Your task to perform on an android device: open device folders in google photos Image 0: 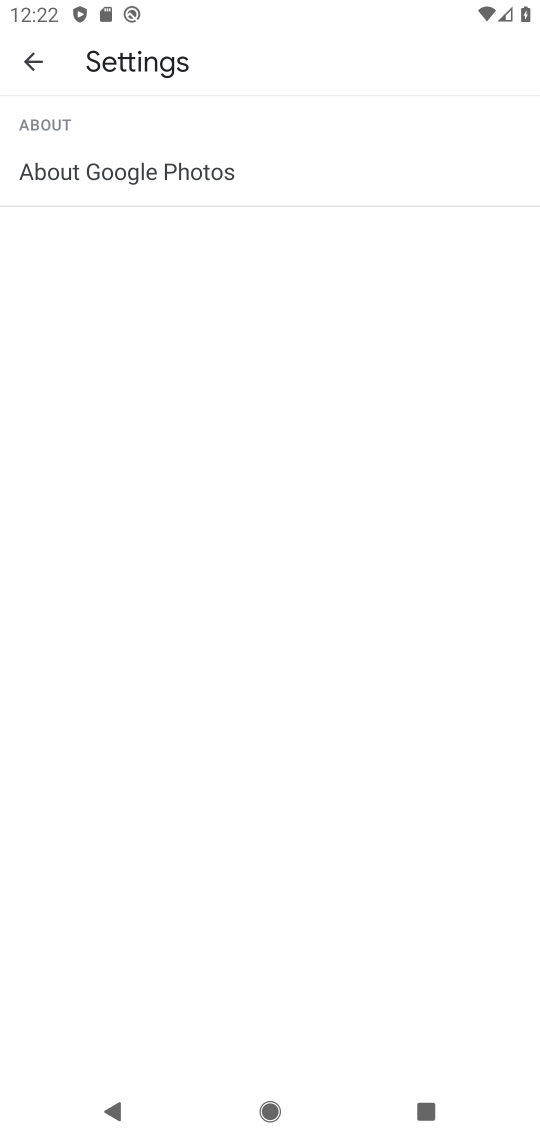
Step 0: press home button
Your task to perform on an android device: open device folders in google photos Image 1: 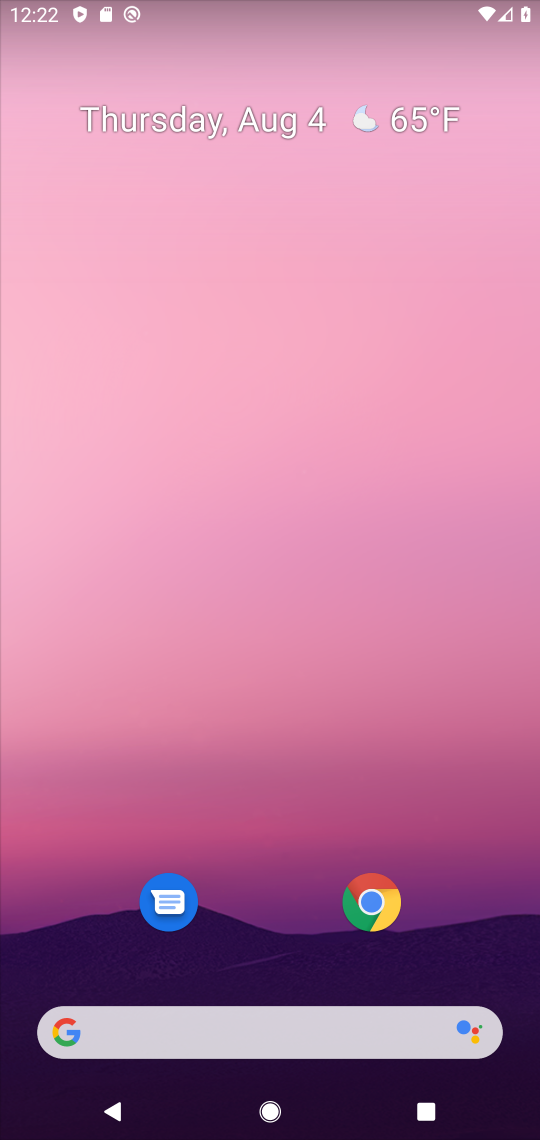
Step 1: drag from (465, 862) to (456, 188)
Your task to perform on an android device: open device folders in google photos Image 2: 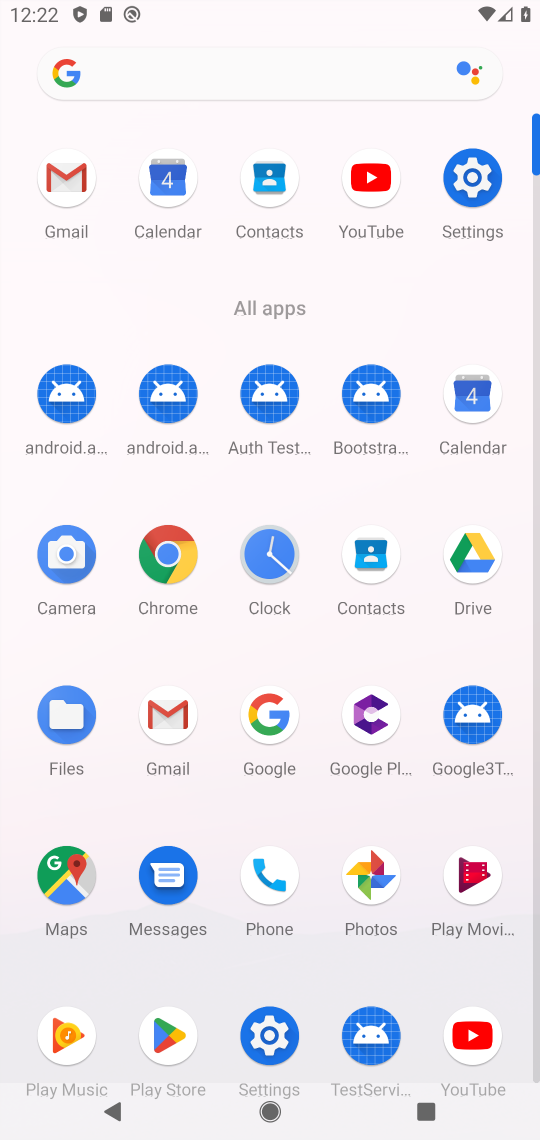
Step 2: click (368, 874)
Your task to perform on an android device: open device folders in google photos Image 3: 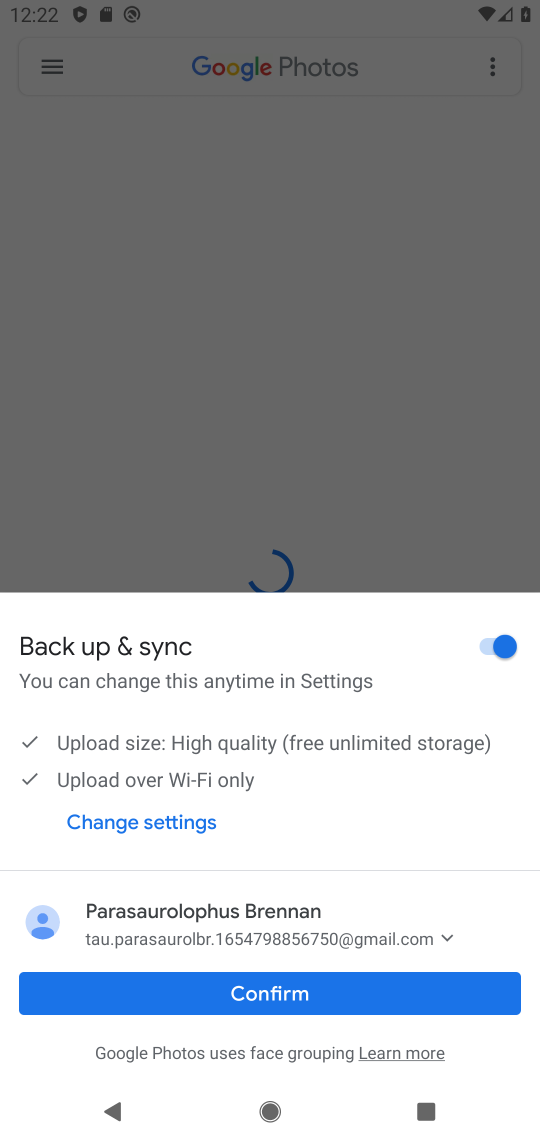
Step 3: click (278, 983)
Your task to perform on an android device: open device folders in google photos Image 4: 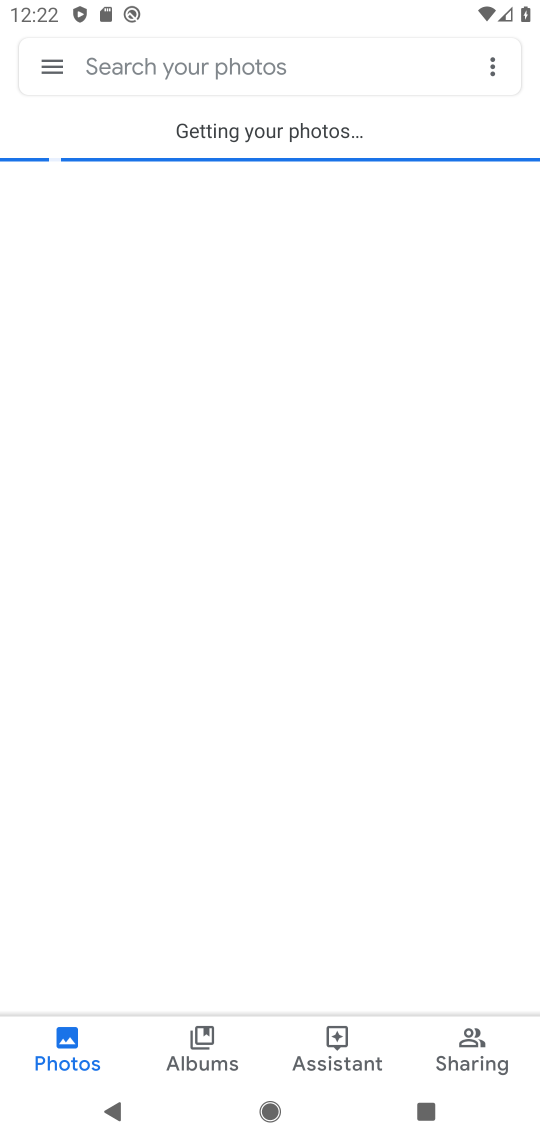
Step 4: click (54, 65)
Your task to perform on an android device: open device folders in google photos Image 5: 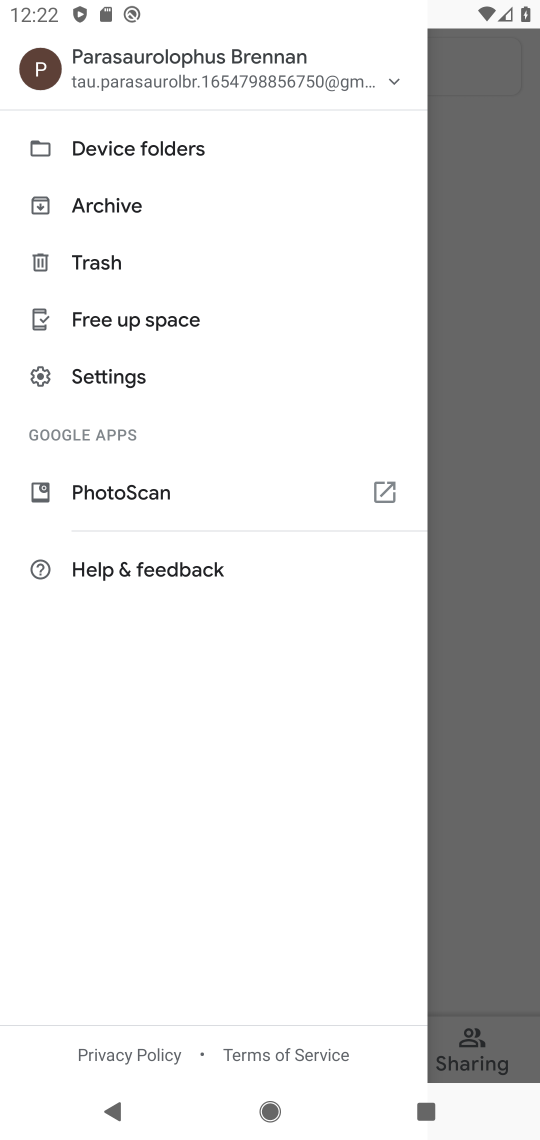
Step 5: click (140, 148)
Your task to perform on an android device: open device folders in google photos Image 6: 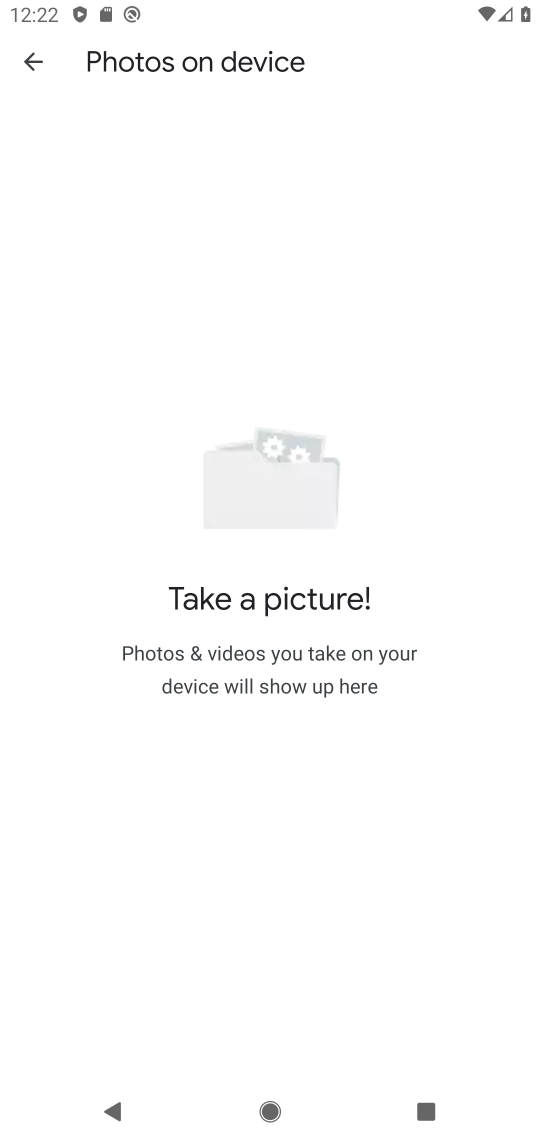
Step 6: task complete